Your task to perform on an android device: Go to wifi settings Image 0: 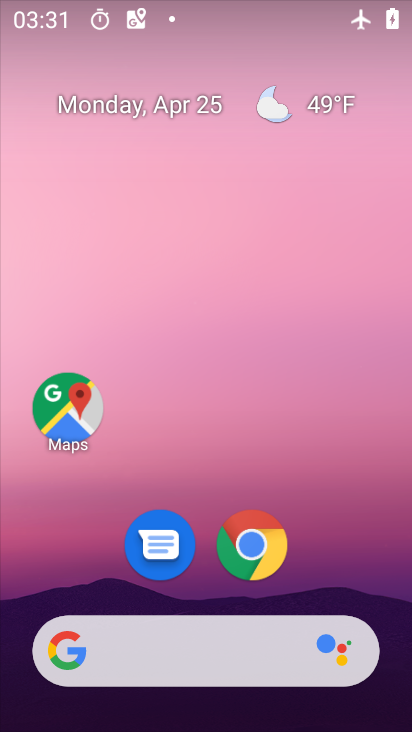
Step 0: drag from (195, 466) to (214, 17)
Your task to perform on an android device: Go to wifi settings Image 1: 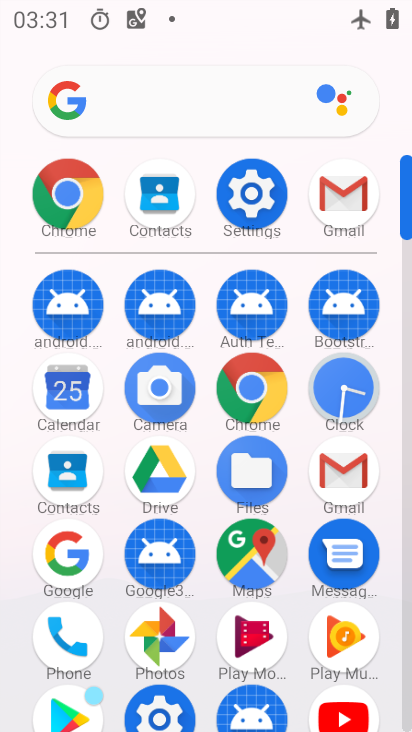
Step 1: click (254, 194)
Your task to perform on an android device: Go to wifi settings Image 2: 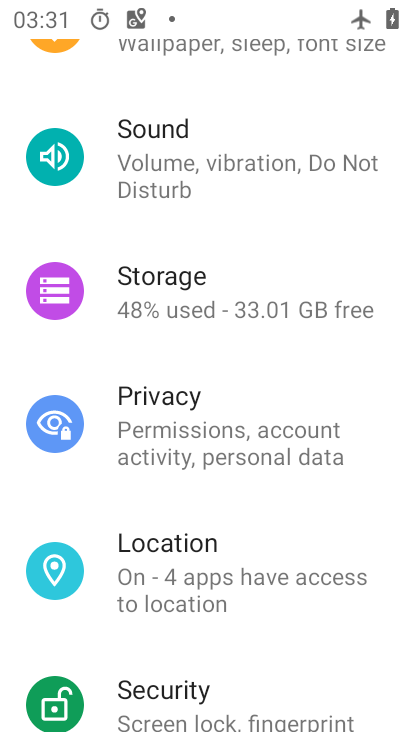
Step 2: drag from (222, 209) to (256, 363)
Your task to perform on an android device: Go to wifi settings Image 3: 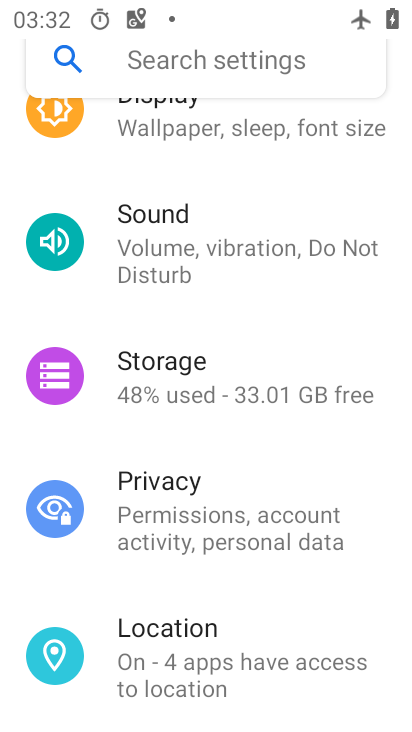
Step 3: drag from (282, 193) to (302, 331)
Your task to perform on an android device: Go to wifi settings Image 4: 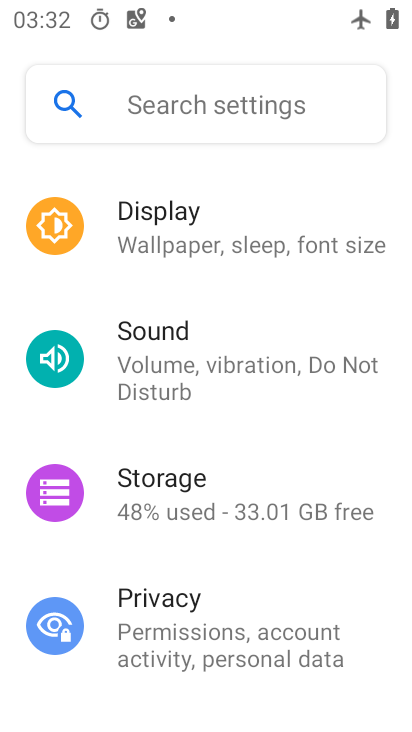
Step 4: drag from (295, 203) to (296, 325)
Your task to perform on an android device: Go to wifi settings Image 5: 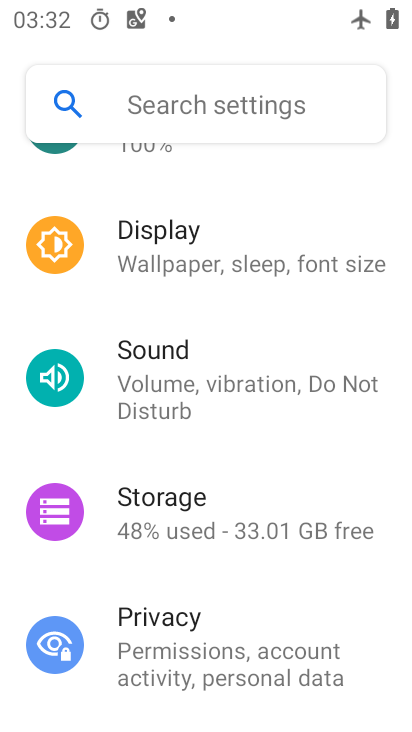
Step 5: drag from (272, 208) to (258, 326)
Your task to perform on an android device: Go to wifi settings Image 6: 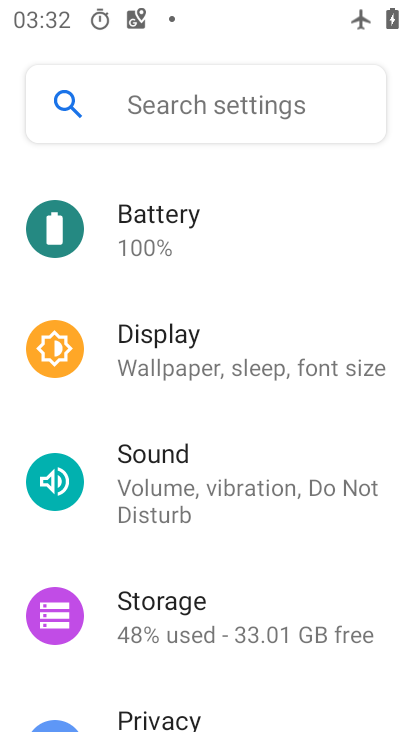
Step 6: drag from (251, 235) to (282, 368)
Your task to perform on an android device: Go to wifi settings Image 7: 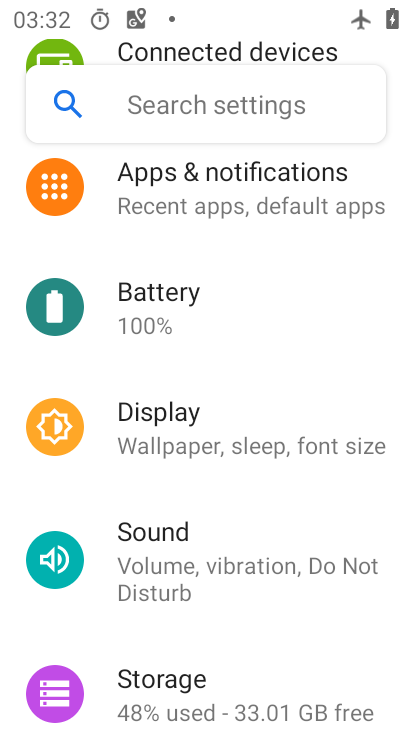
Step 7: drag from (272, 272) to (240, 342)
Your task to perform on an android device: Go to wifi settings Image 8: 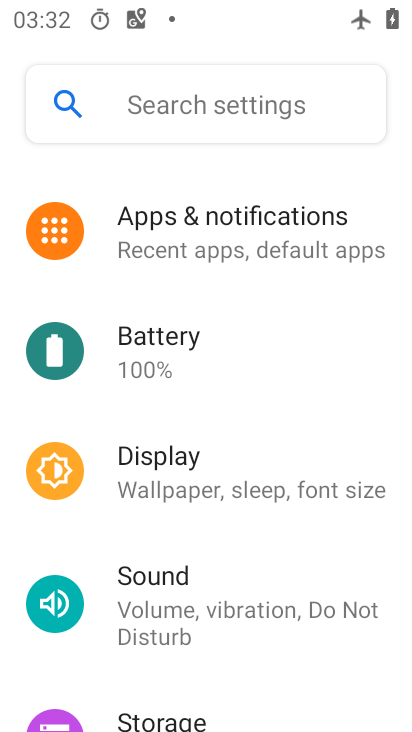
Step 8: drag from (239, 327) to (264, 415)
Your task to perform on an android device: Go to wifi settings Image 9: 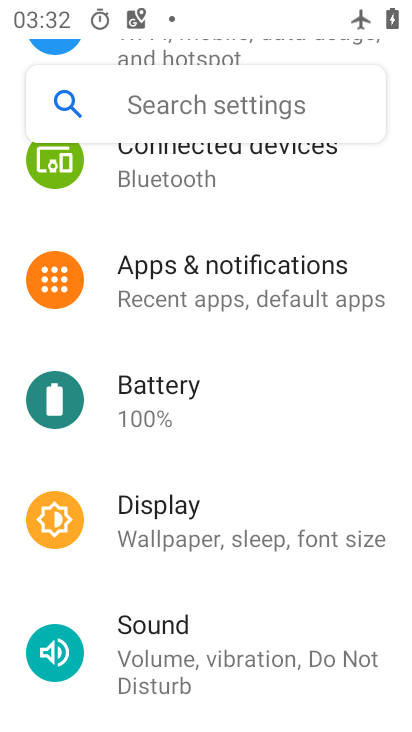
Step 9: drag from (250, 202) to (276, 315)
Your task to perform on an android device: Go to wifi settings Image 10: 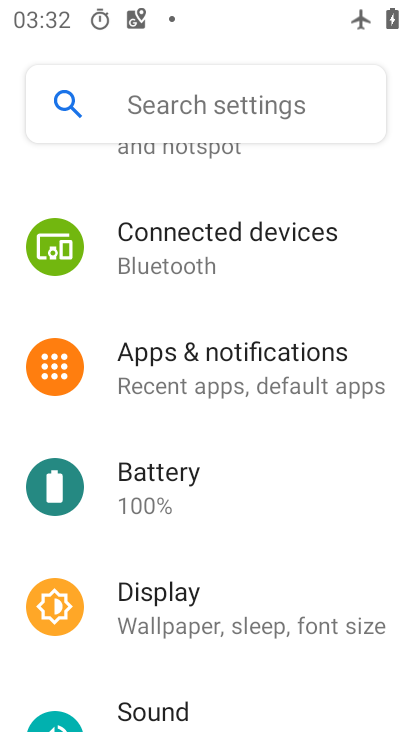
Step 10: drag from (245, 187) to (306, 328)
Your task to perform on an android device: Go to wifi settings Image 11: 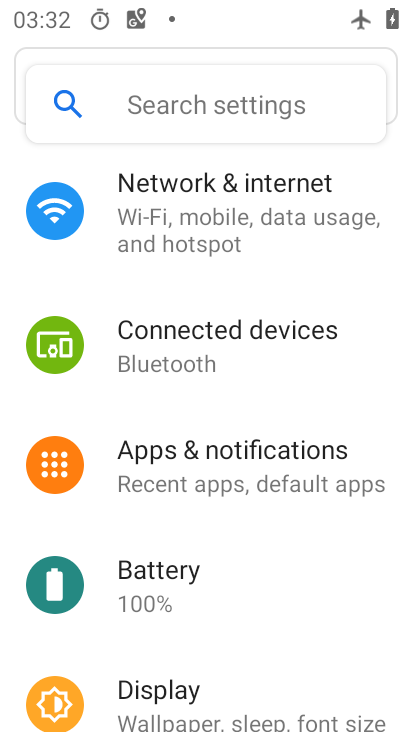
Step 11: click (266, 183)
Your task to perform on an android device: Go to wifi settings Image 12: 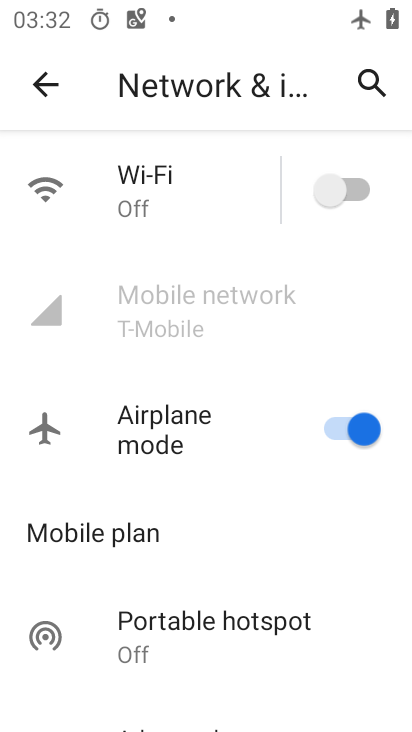
Step 12: click (150, 170)
Your task to perform on an android device: Go to wifi settings Image 13: 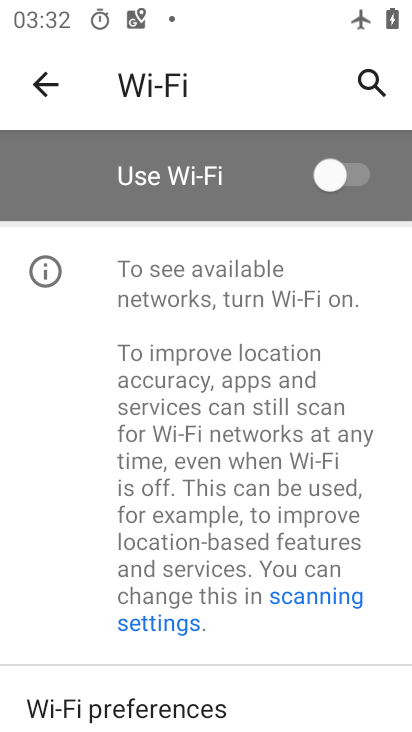
Step 13: task complete